Your task to perform on an android device: Is it going to rain this weekend? Image 0: 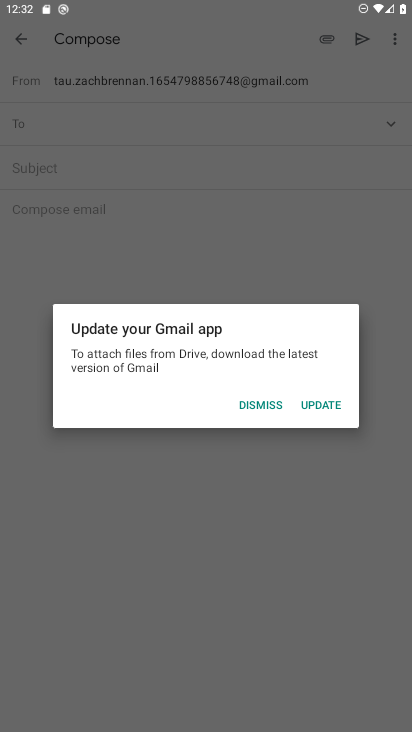
Step 0: press home button
Your task to perform on an android device: Is it going to rain this weekend? Image 1: 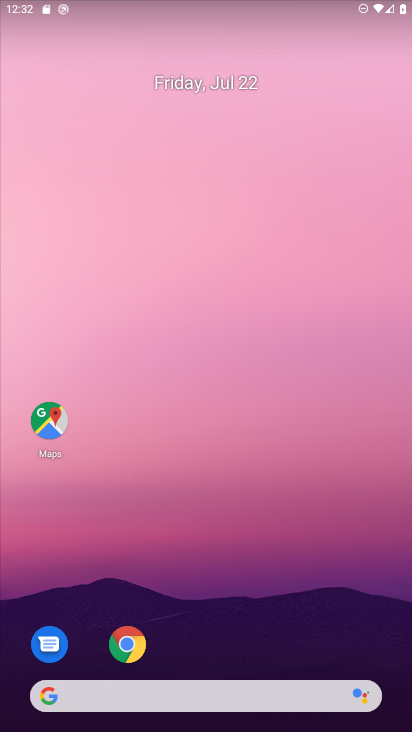
Step 1: click (157, 698)
Your task to perform on an android device: Is it going to rain this weekend? Image 2: 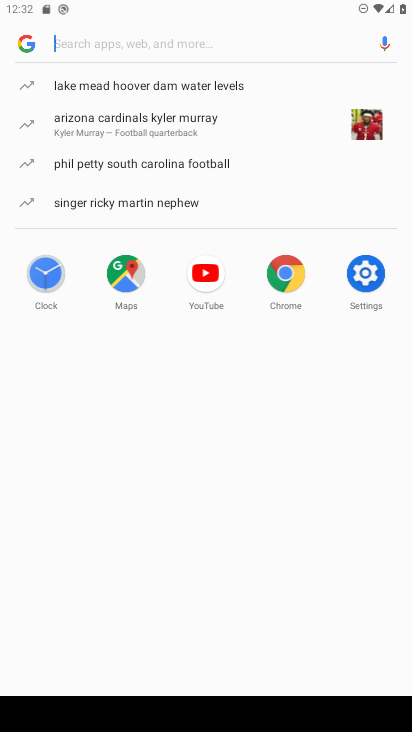
Step 2: type "weather"
Your task to perform on an android device: Is it going to rain this weekend? Image 3: 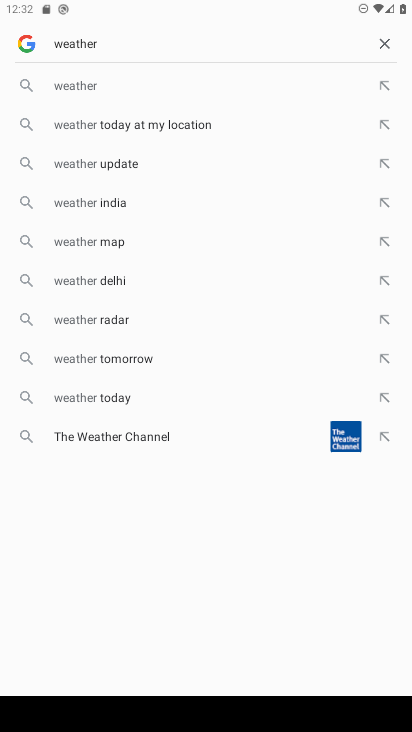
Step 3: click (163, 100)
Your task to perform on an android device: Is it going to rain this weekend? Image 4: 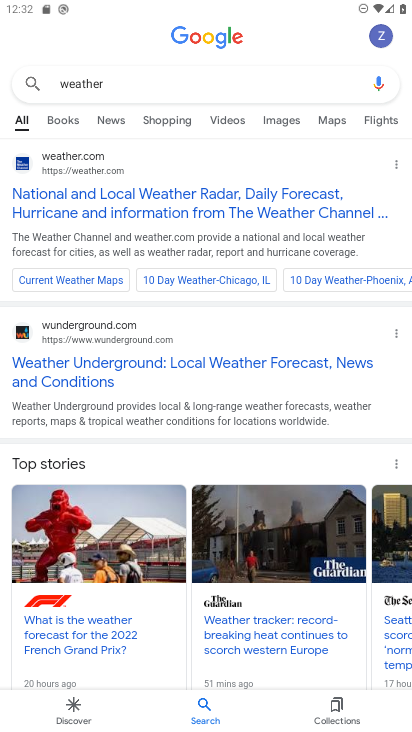
Step 4: task complete